Your task to perform on an android device: install app "LinkedIn" Image 0: 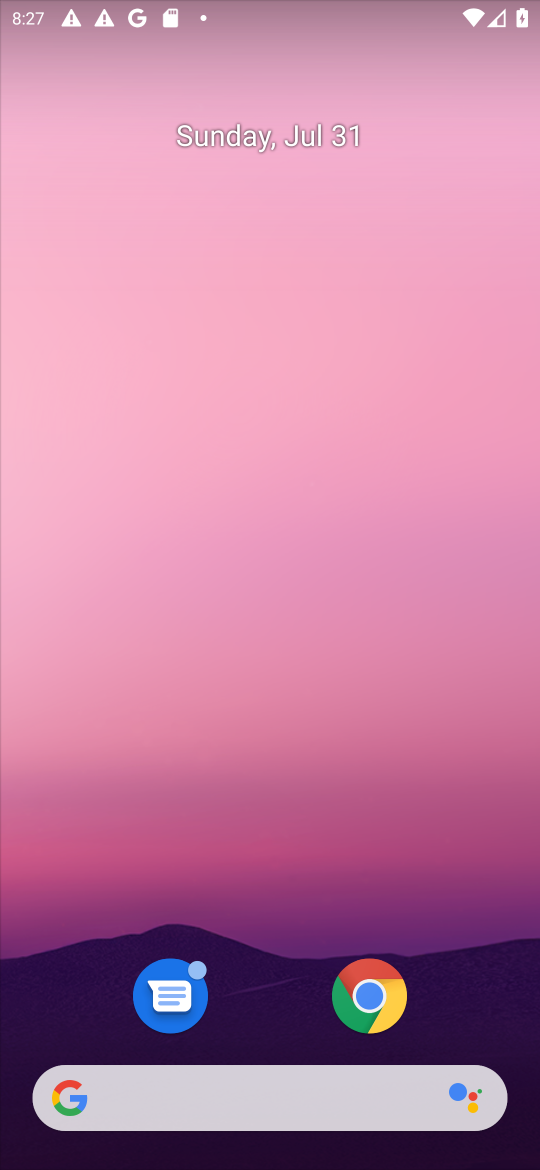
Step 0: drag from (447, 969) to (434, 146)
Your task to perform on an android device: install app "LinkedIn" Image 1: 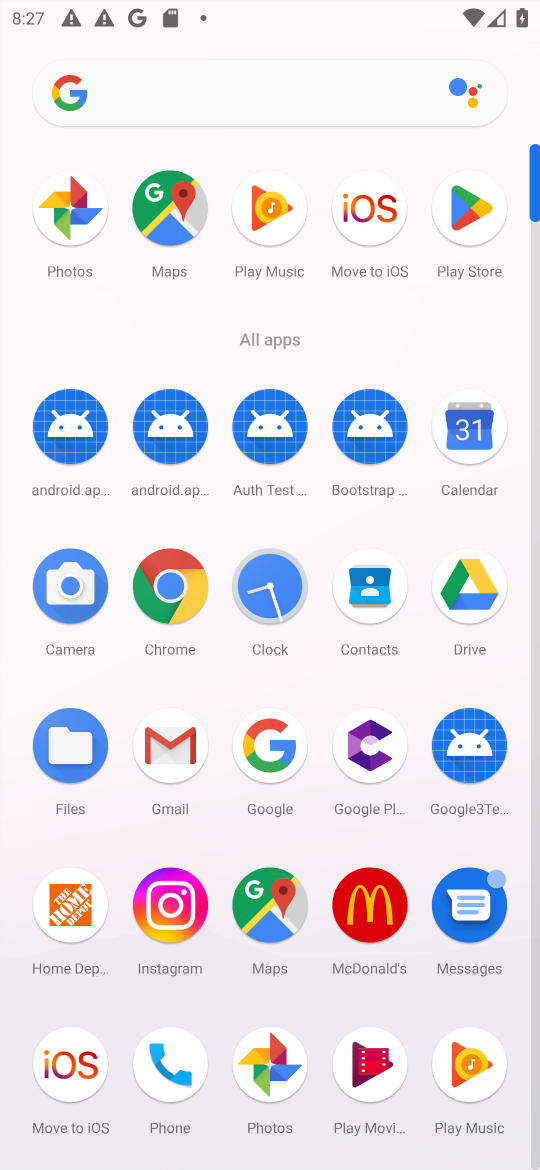
Step 1: click (467, 216)
Your task to perform on an android device: install app "LinkedIn" Image 2: 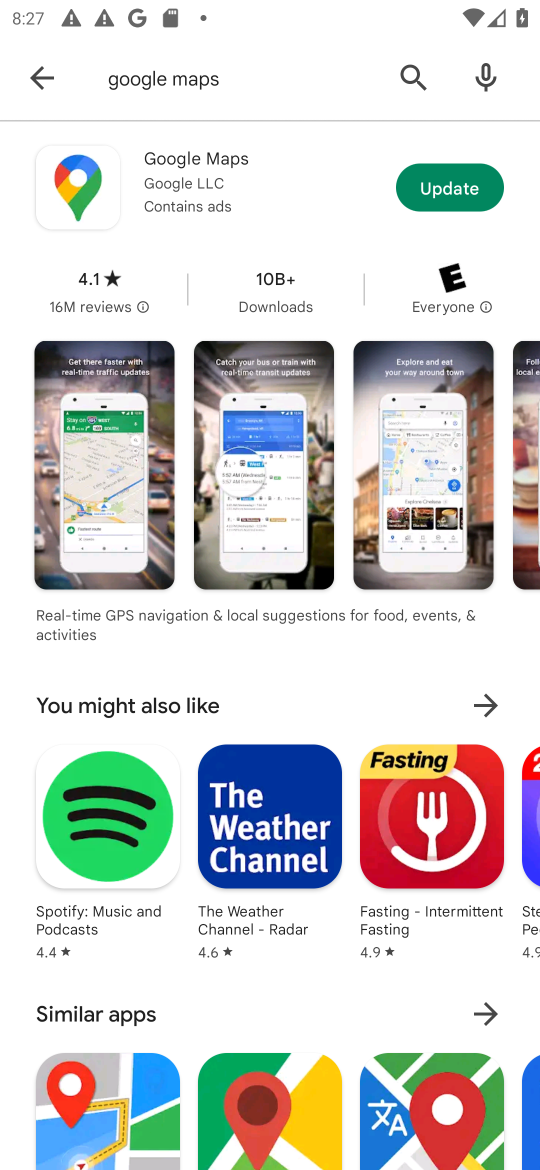
Step 2: press back button
Your task to perform on an android device: install app "LinkedIn" Image 3: 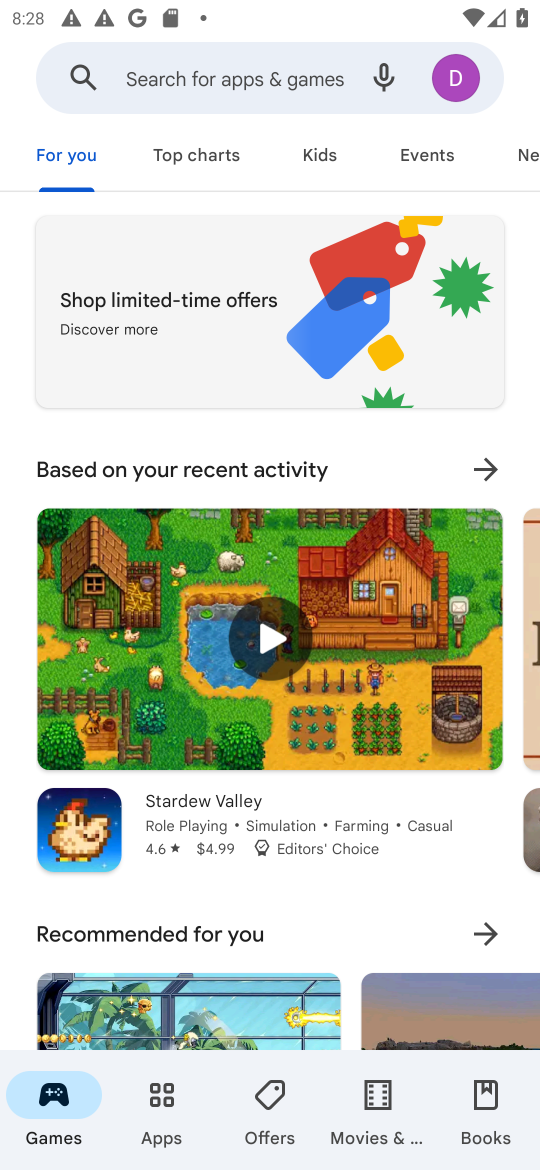
Step 3: click (143, 70)
Your task to perform on an android device: install app "LinkedIn" Image 4: 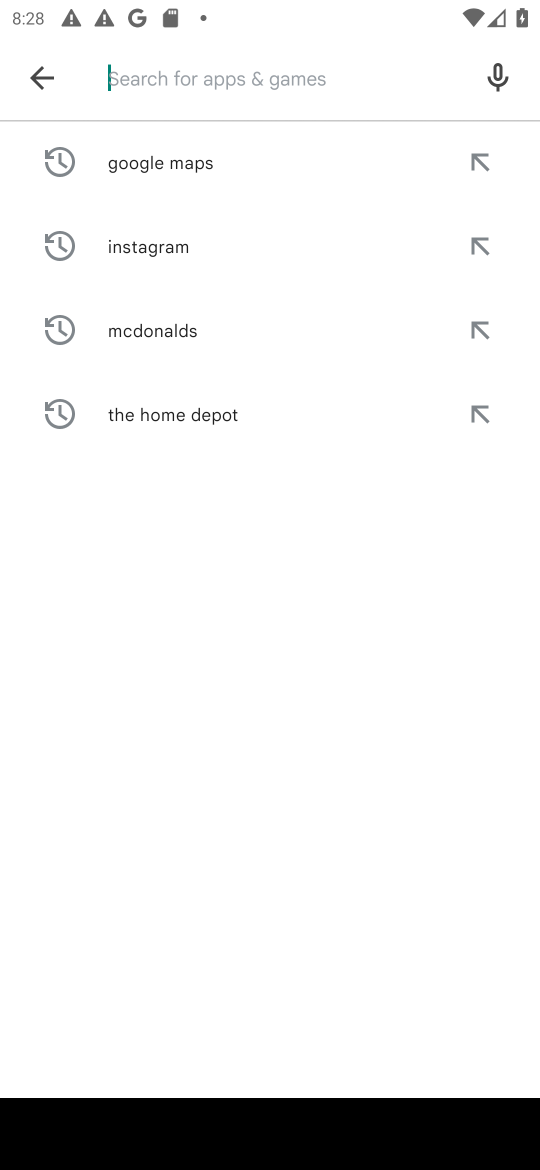
Step 4: type "linkedin"
Your task to perform on an android device: install app "LinkedIn" Image 5: 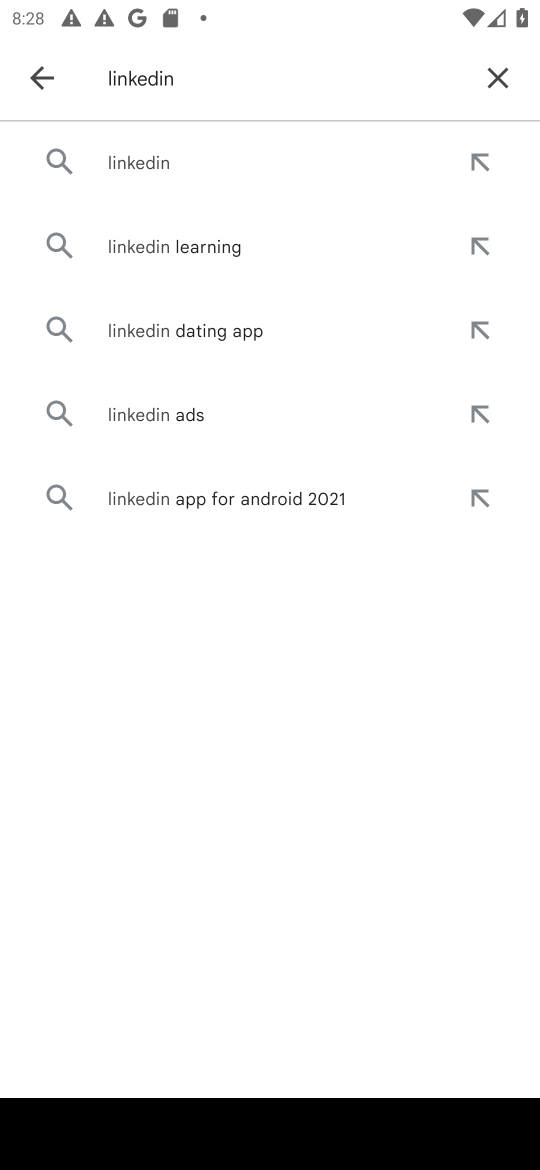
Step 5: click (199, 168)
Your task to perform on an android device: install app "LinkedIn" Image 6: 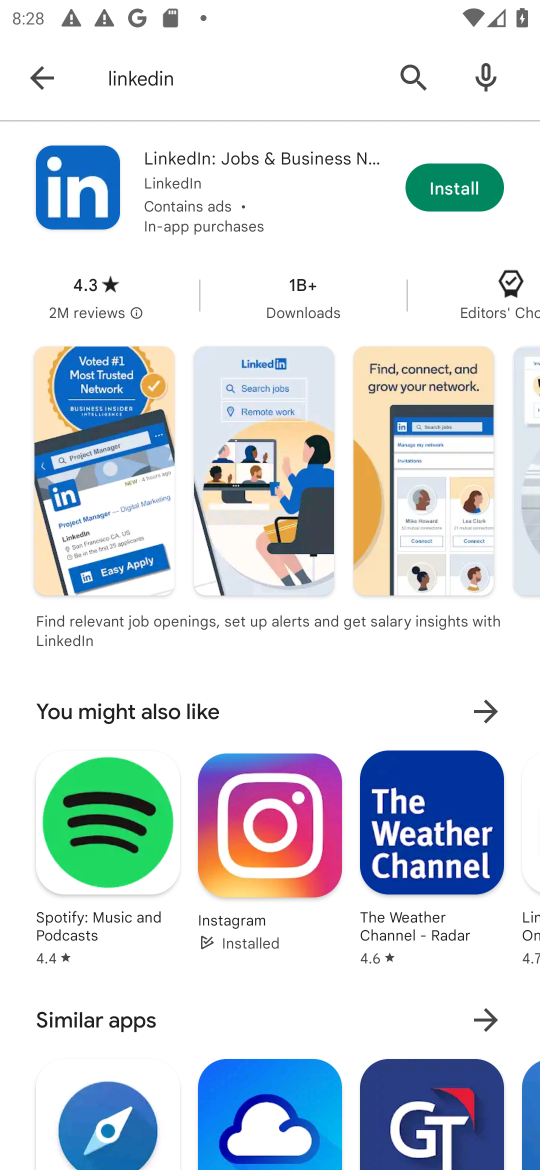
Step 6: click (458, 202)
Your task to perform on an android device: install app "LinkedIn" Image 7: 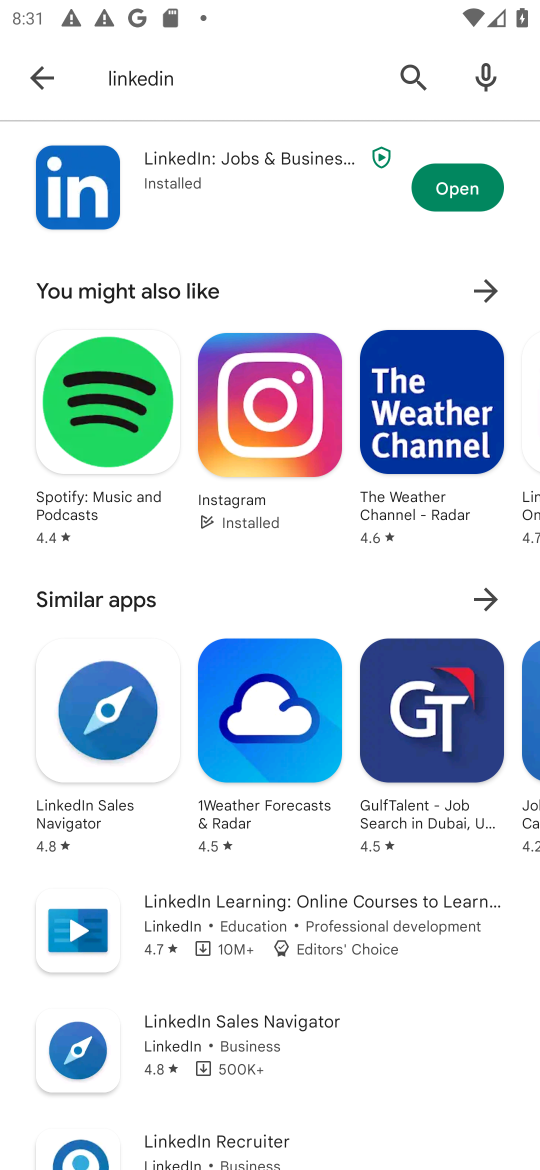
Step 7: task complete